Your task to perform on an android device: toggle pop-ups in chrome Image 0: 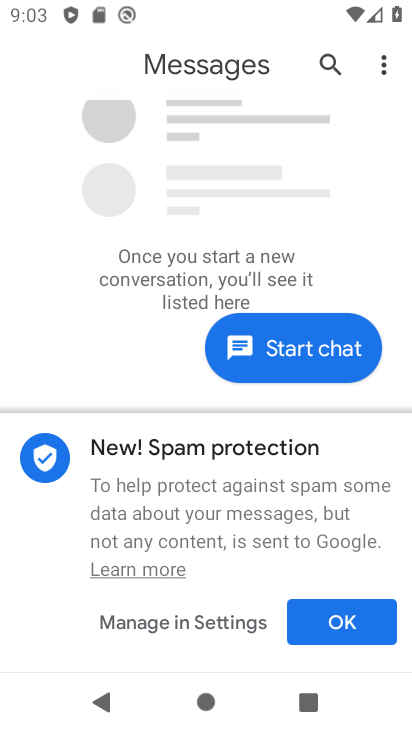
Step 0: press home button
Your task to perform on an android device: toggle pop-ups in chrome Image 1: 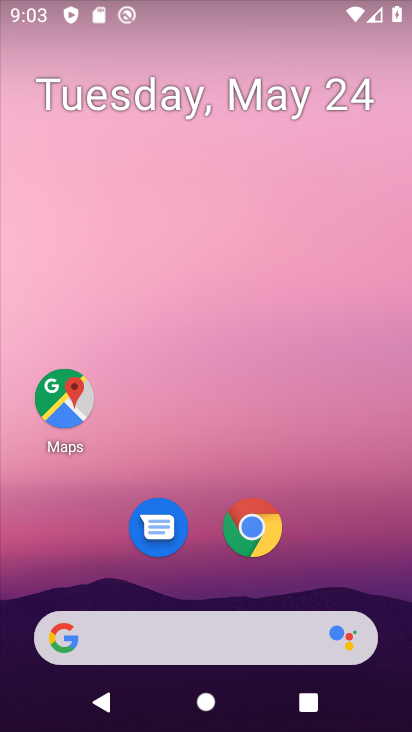
Step 1: click (250, 522)
Your task to perform on an android device: toggle pop-ups in chrome Image 2: 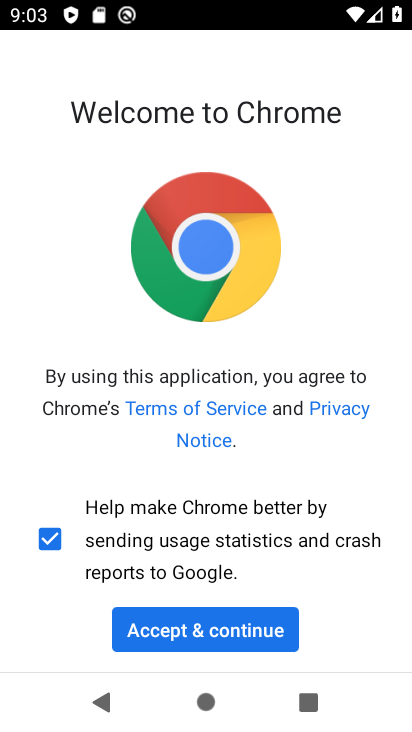
Step 2: click (218, 636)
Your task to perform on an android device: toggle pop-ups in chrome Image 3: 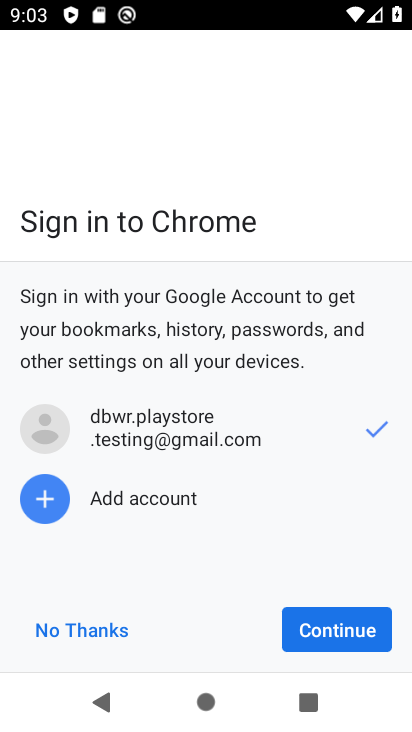
Step 3: click (325, 618)
Your task to perform on an android device: toggle pop-ups in chrome Image 4: 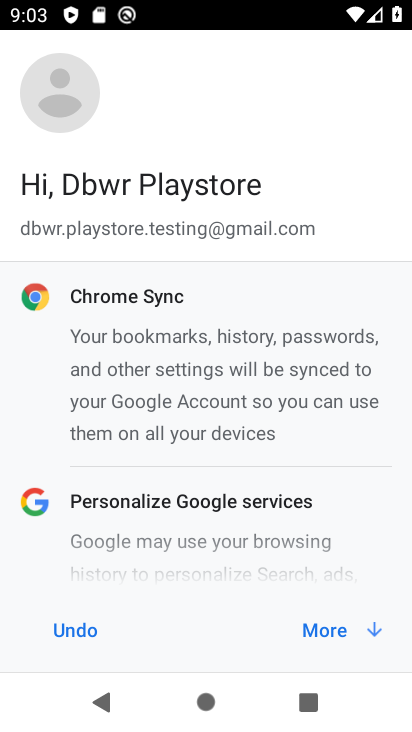
Step 4: click (304, 619)
Your task to perform on an android device: toggle pop-ups in chrome Image 5: 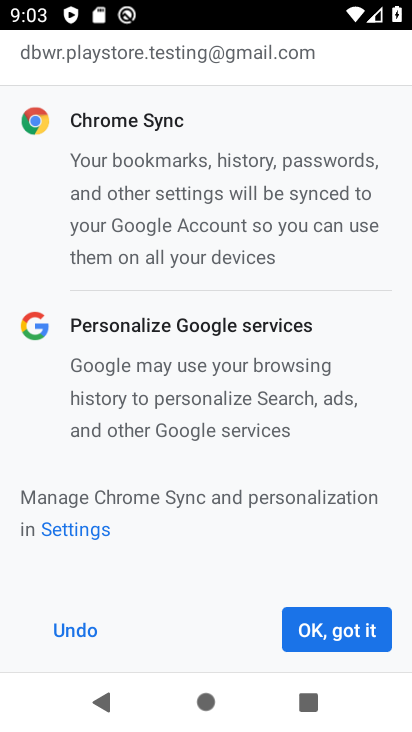
Step 5: click (304, 621)
Your task to perform on an android device: toggle pop-ups in chrome Image 6: 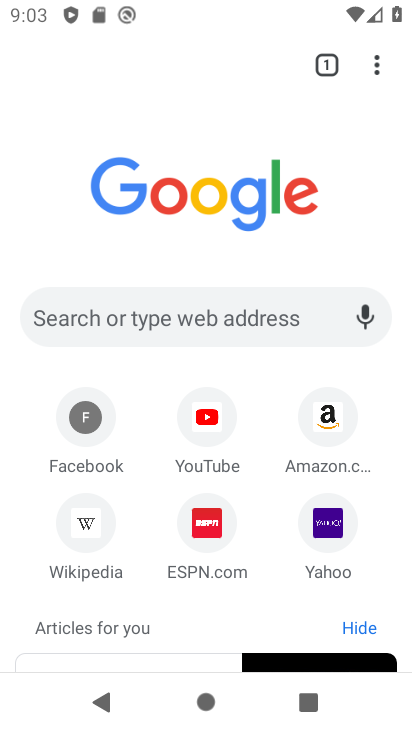
Step 6: click (372, 60)
Your task to perform on an android device: toggle pop-ups in chrome Image 7: 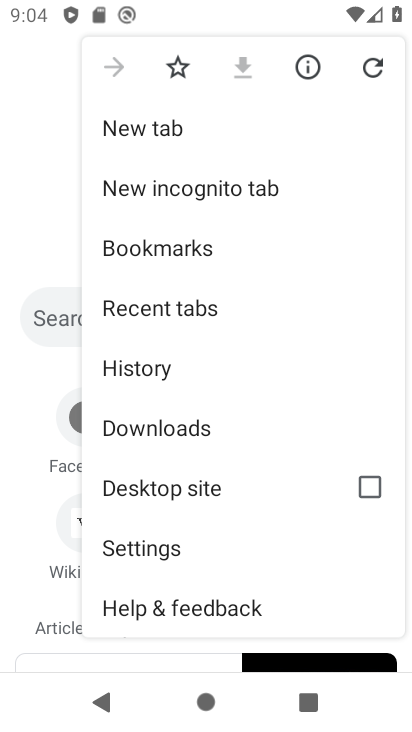
Step 7: drag from (283, 578) to (264, 302)
Your task to perform on an android device: toggle pop-ups in chrome Image 8: 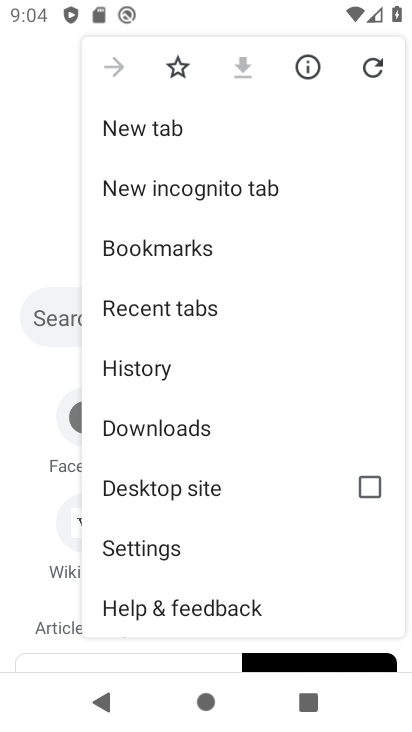
Step 8: click (146, 544)
Your task to perform on an android device: toggle pop-ups in chrome Image 9: 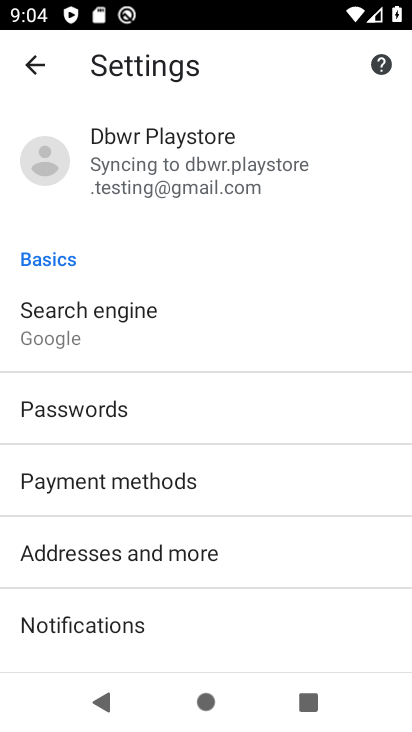
Step 9: drag from (287, 610) to (276, 305)
Your task to perform on an android device: toggle pop-ups in chrome Image 10: 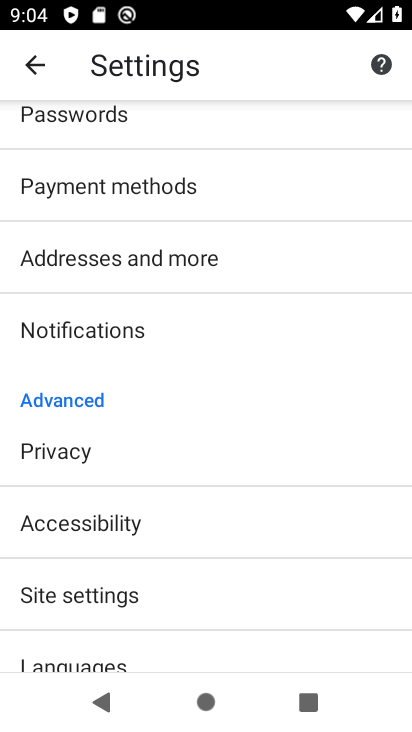
Step 10: drag from (253, 622) to (231, 310)
Your task to perform on an android device: toggle pop-ups in chrome Image 11: 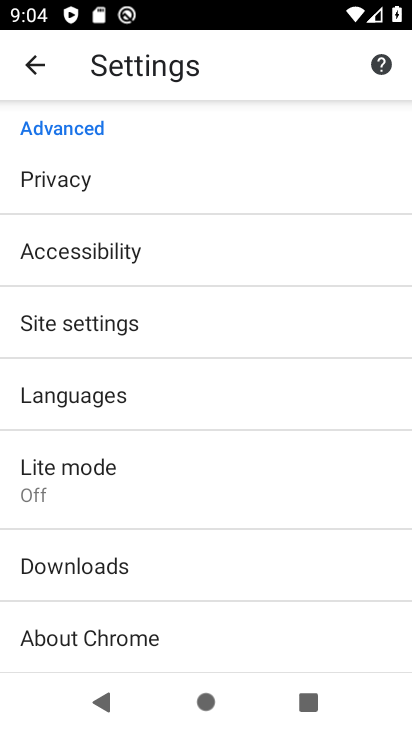
Step 11: drag from (235, 627) to (233, 377)
Your task to perform on an android device: toggle pop-ups in chrome Image 12: 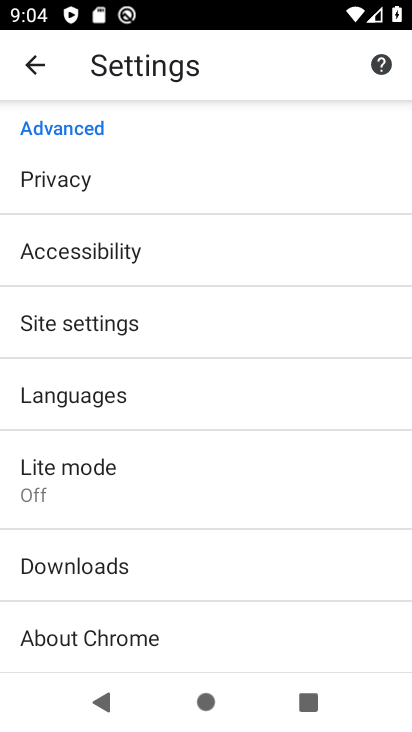
Step 12: click (55, 317)
Your task to perform on an android device: toggle pop-ups in chrome Image 13: 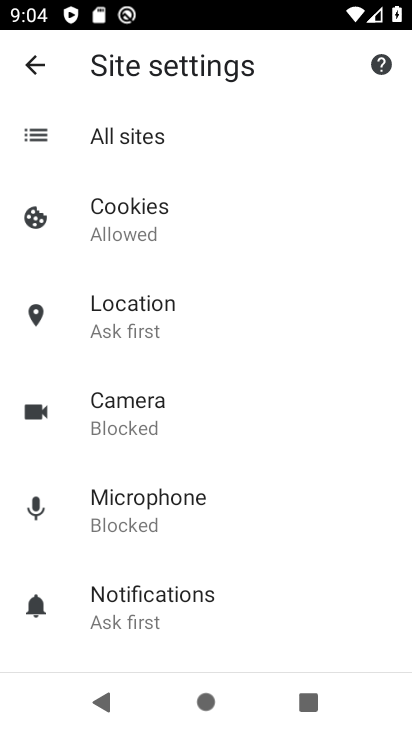
Step 13: drag from (261, 628) to (258, 341)
Your task to perform on an android device: toggle pop-ups in chrome Image 14: 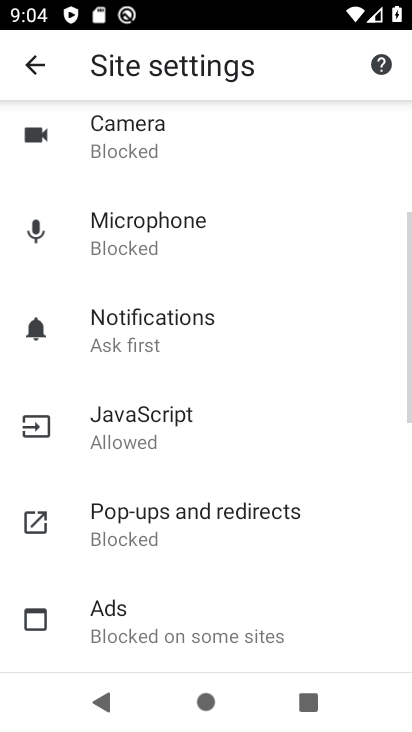
Step 14: click (217, 506)
Your task to perform on an android device: toggle pop-ups in chrome Image 15: 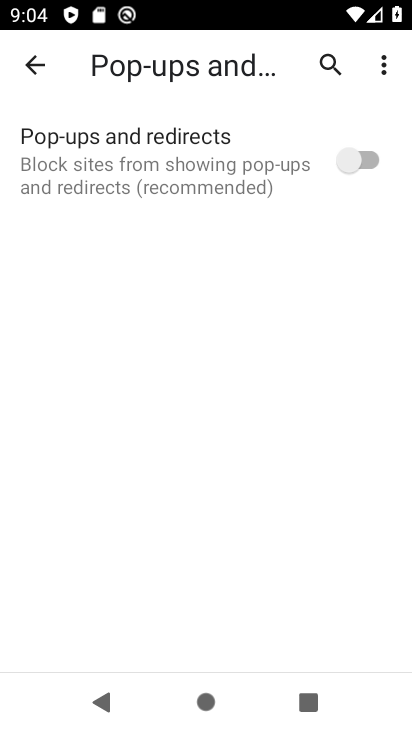
Step 15: click (366, 157)
Your task to perform on an android device: toggle pop-ups in chrome Image 16: 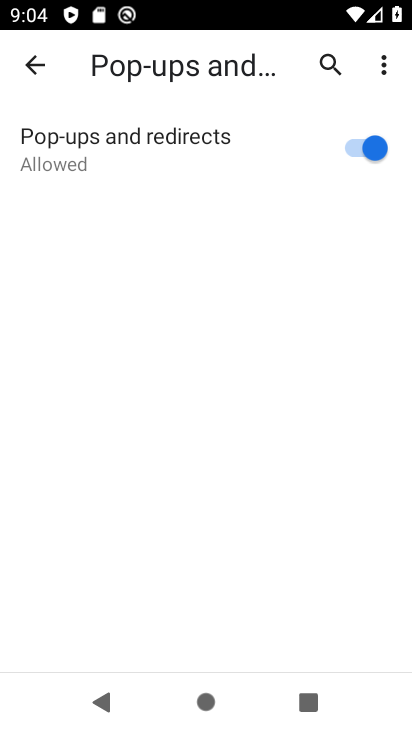
Step 16: task complete